Your task to perform on an android device: open app "McDonald's" Image 0: 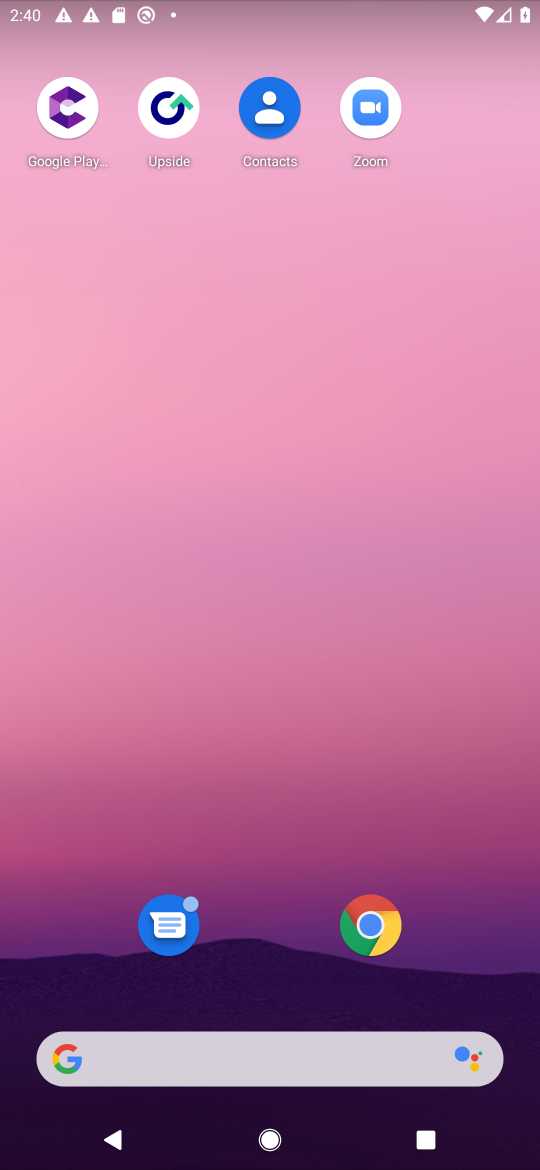
Step 0: drag from (288, 959) to (280, 19)
Your task to perform on an android device: open app "McDonald's" Image 1: 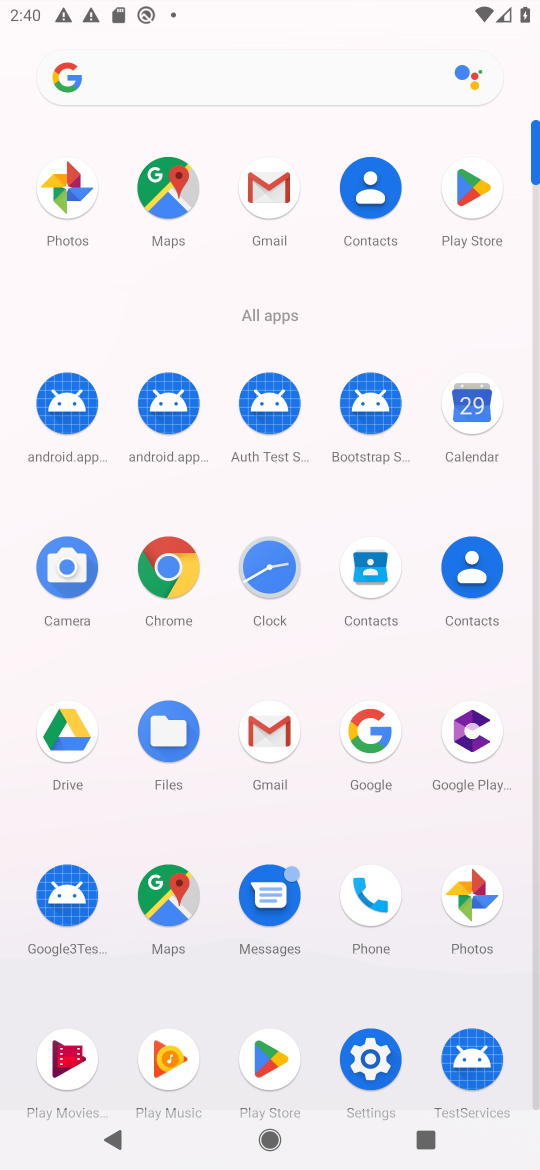
Step 1: click (465, 185)
Your task to perform on an android device: open app "McDonald's" Image 2: 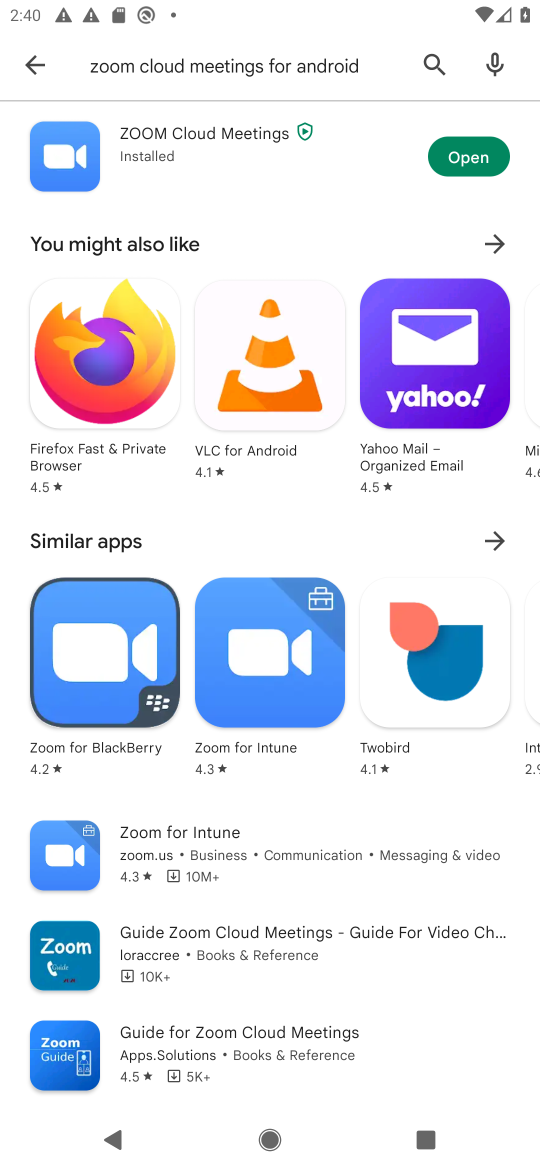
Step 2: click (425, 67)
Your task to perform on an android device: open app "McDonald's" Image 3: 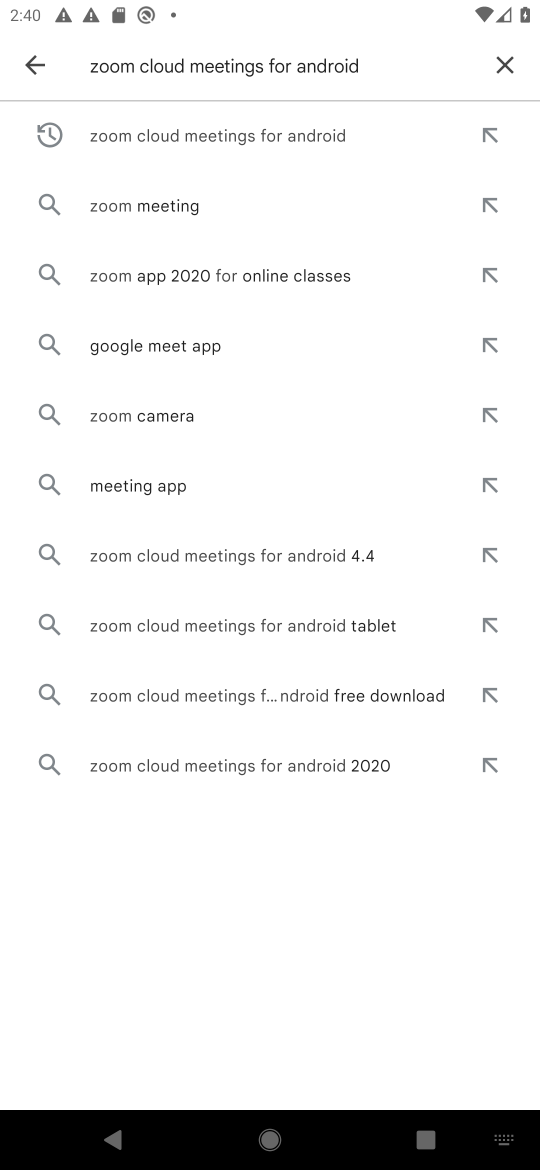
Step 3: click (501, 68)
Your task to perform on an android device: open app "McDonald's" Image 4: 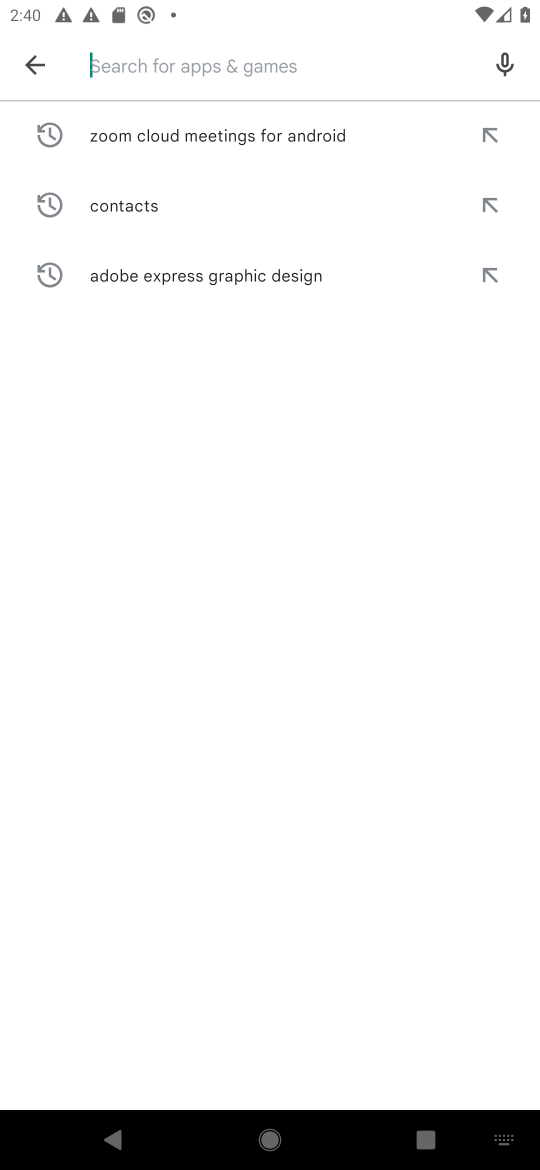
Step 4: click (192, 68)
Your task to perform on an android device: open app "McDonald's" Image 5: 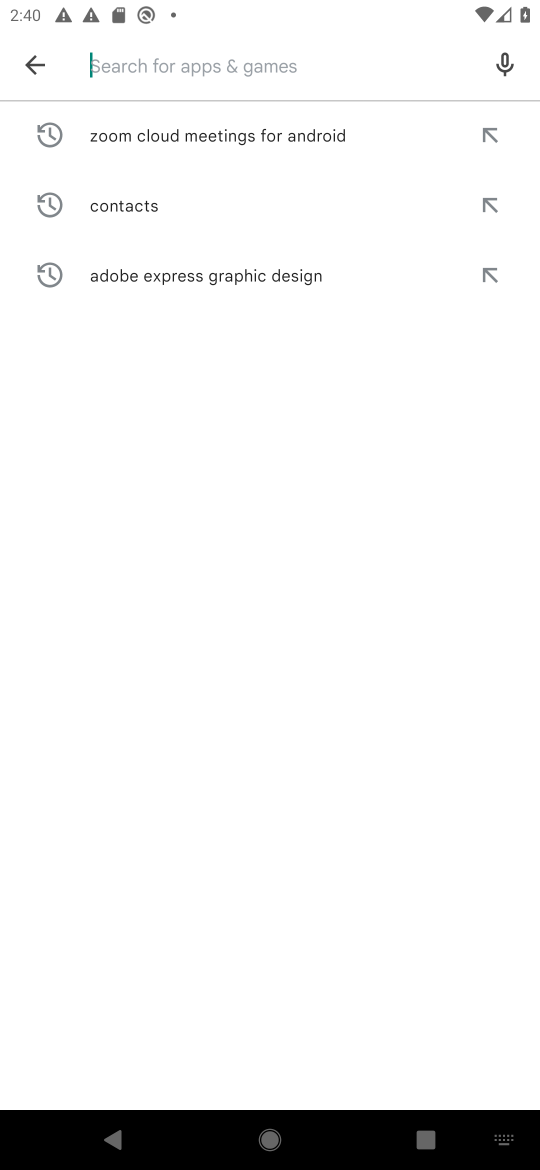
Step 5: type "McDonald's"
Your task to perform on an android device: open app "McDonald's" Image 6: 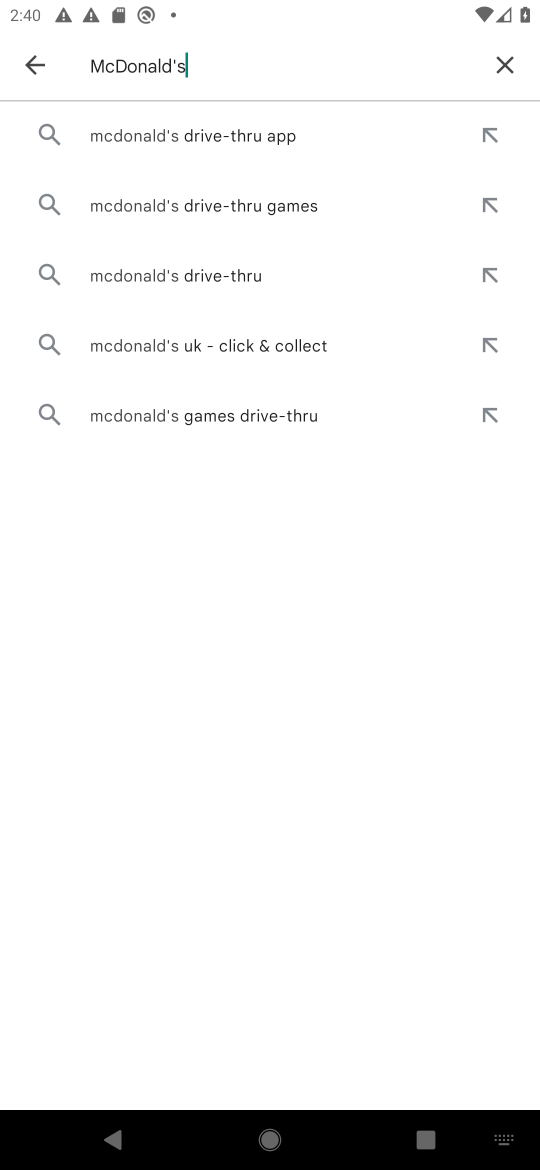
Step 6: click (115, 135)
Your task to perform on an android device: open app "McDonald's" Image 7: 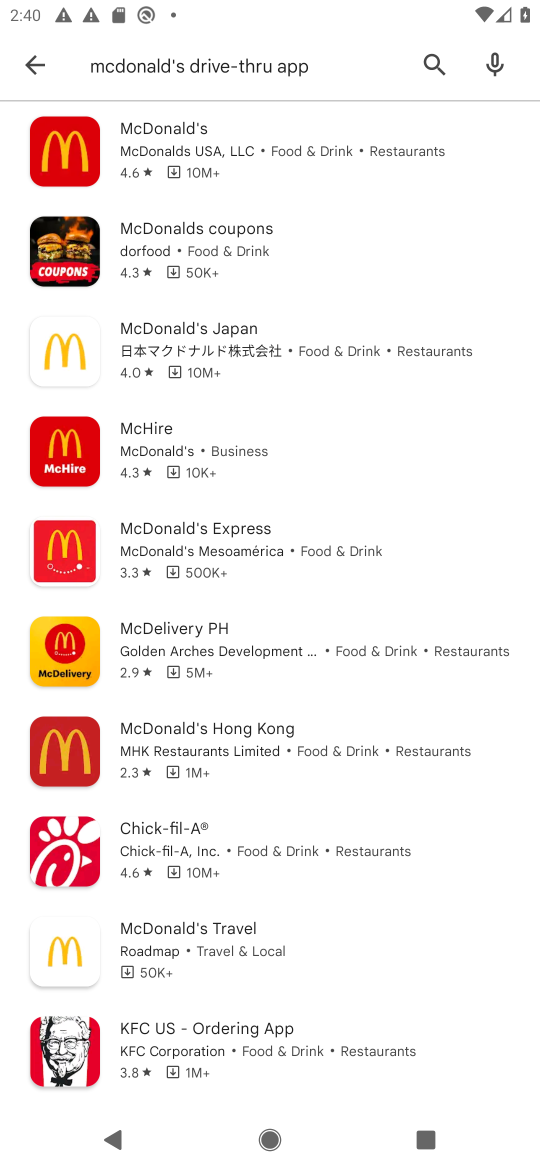
Step 7: click (121, 169)
Your task to perform on an android device: open app "McDonald's" Image 8: 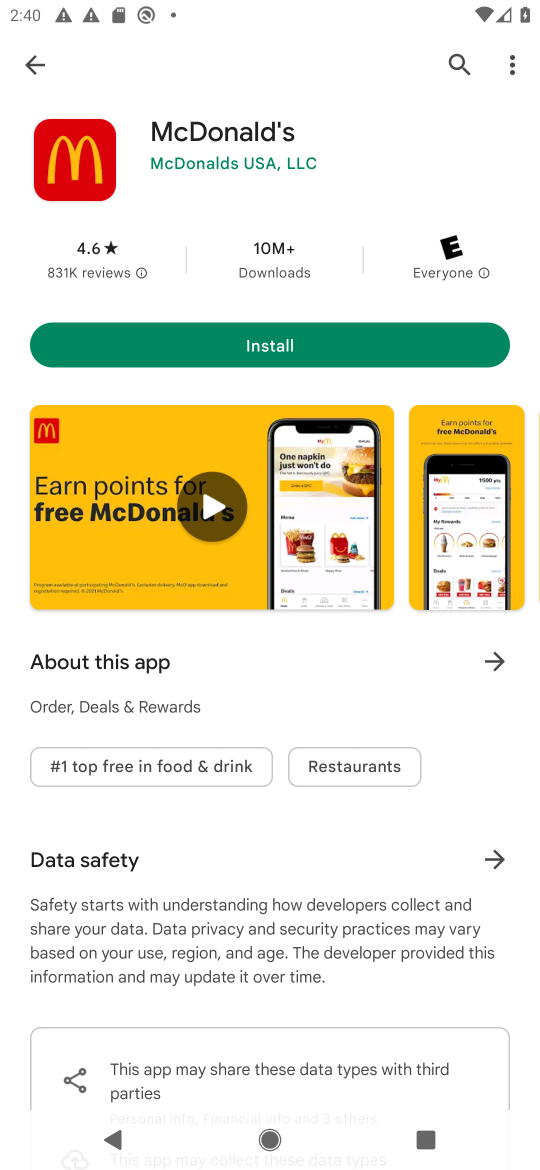
Step 8: task complete